Your task to perform on an android device: Open the most recent email and forward to: 'tau.rolandbrenna.1654798856749@gmail.com'. Image 0: 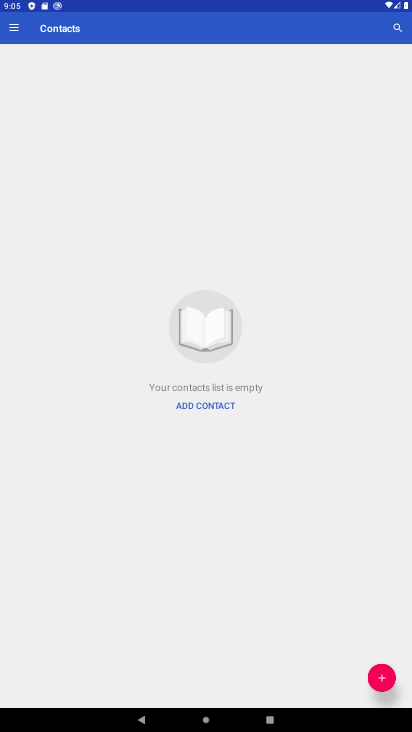
Step 0: press home button
Your task to perform on an android device: Open the most recent email and forward to: 'tau.rolandbrenna.1654798856749@gmail.com'. Image 1: 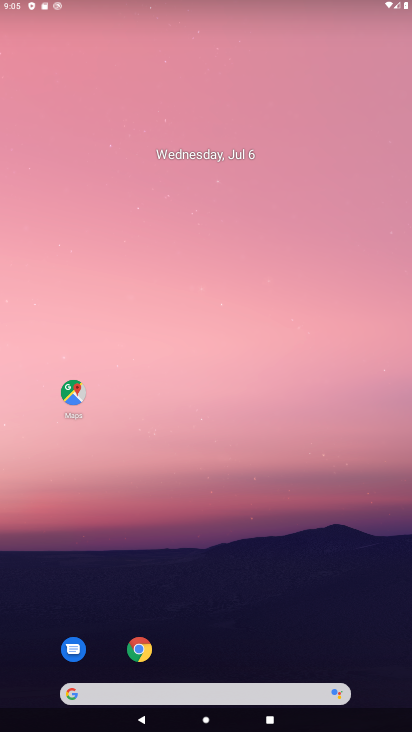
Step 1: drag from (321, 592) to (314, 7)
Your task to perform on an android device: Open the most recent email and forward to: 'tau.rolandbrenna.1654798856749@gmail.com'. Image 2: 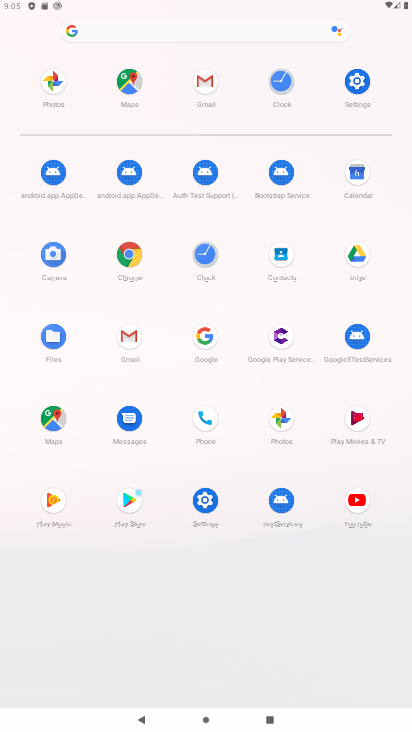
Step 2: click (209, 98)
Your task to perform on an android device: Open the most recent email and forward to: 'tau.rolandbrenna.1654798856749@gmail.com'. Image 3: 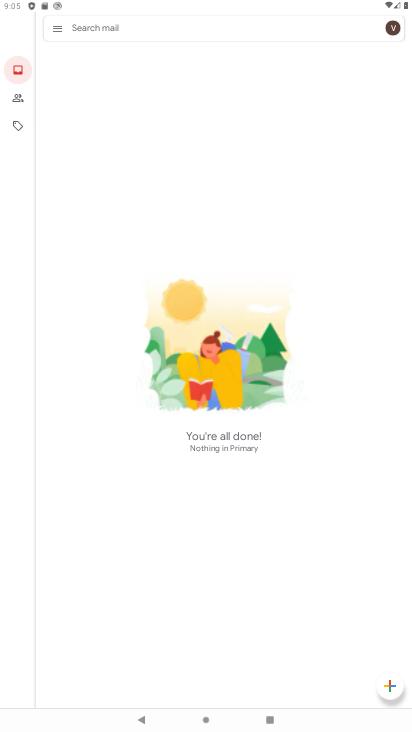
Step 3: task complete